Your task to perform on an android device: turn off priority inbox in the gmail app Image 0: 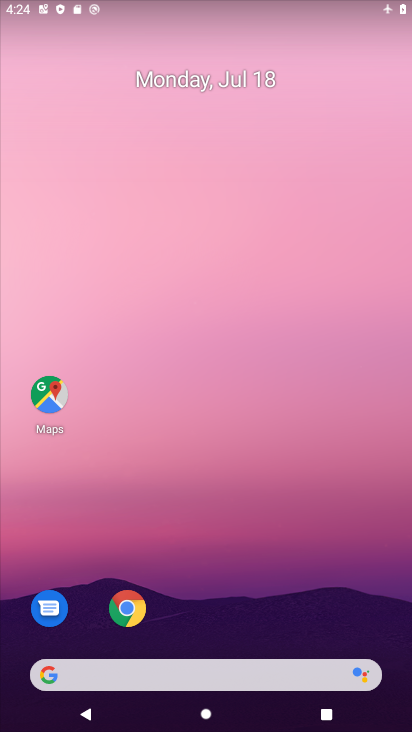
Step 0: drag from (247, 473) to (265, 86)
Your task to perform on an android device: turn off priority inbox in the gmail app Image 1: 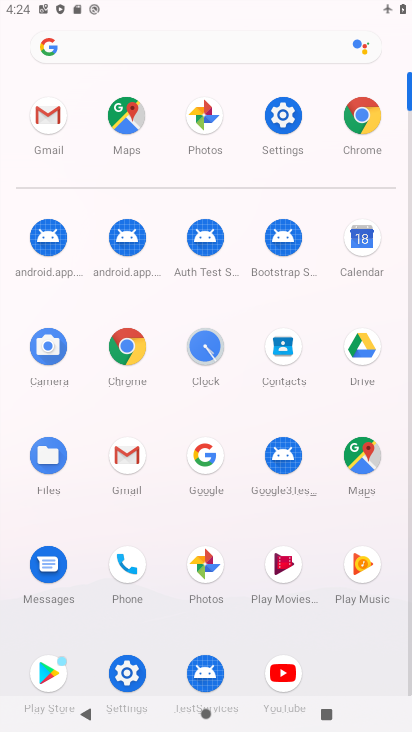
Step 1: click (120, 462)
Your task to perform on an android device: turn off priority inbox in the gmail app Image 2: 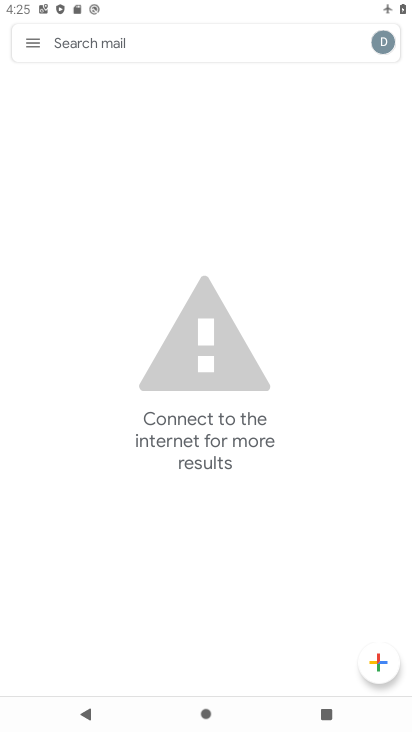
Step 2: click (35, 39)
Your task to perform on an android device: turn off priority inbox in the gmail app Image 3: 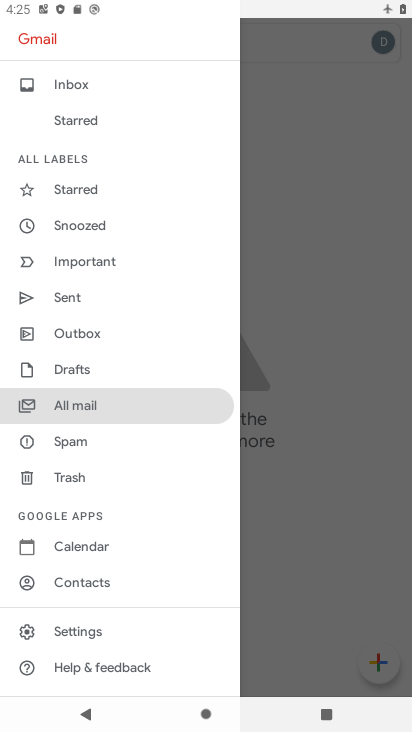
Step 3: click (92, 638)
Your task to perform on an android device: turn off priority inbox in the gmail app Image 4: 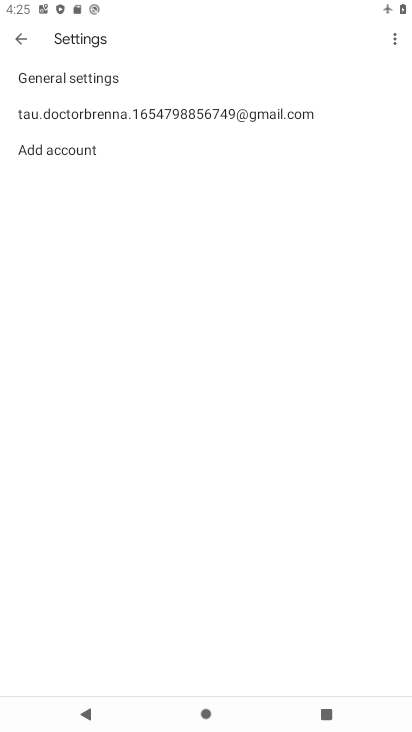
Step 4: click (242, 114)
Your task to perform on an android device: turn off priority inbox in the gmail app Image 5: 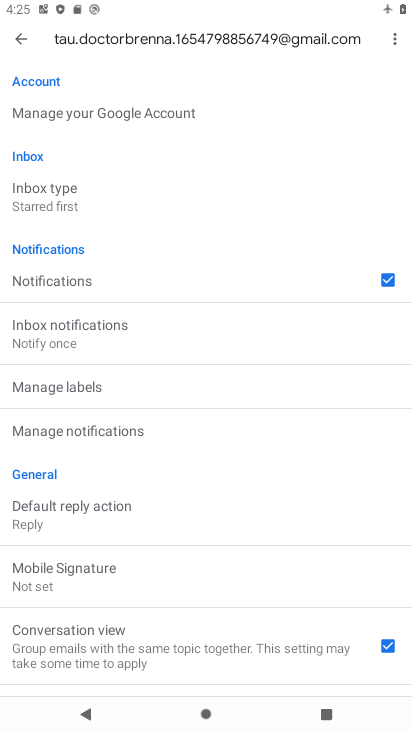
Step 5: drag from (234, 613) to (337, 23)
Your task to perform on an android device: turn off priority inbox in the gmail app Image 6: 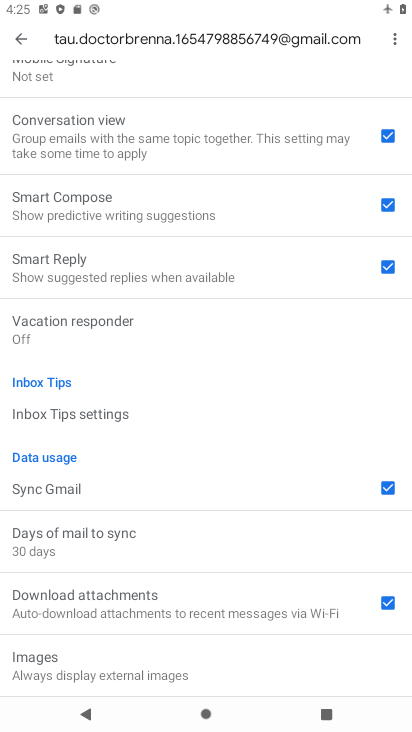
Step 6: drag from (194, 427) to (195, 576)
Your task to perform on an android device: turn off priority inbox in the gmail app Image 7: 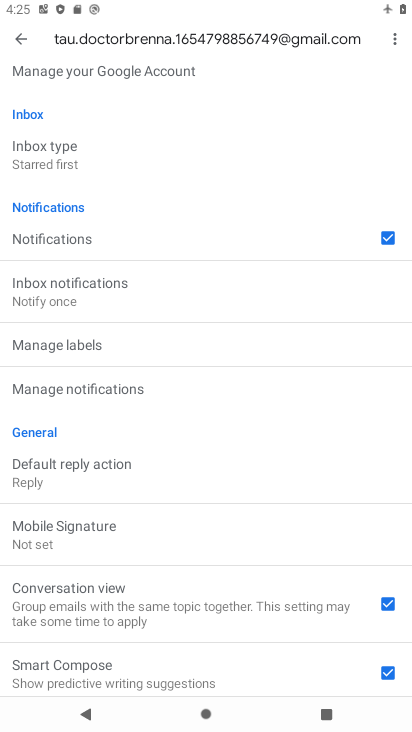
Step 7: drag from (133, 158) to (134, 407)
Your task to perform on an android device: turn off priority inbox in the gmail app Image 8: 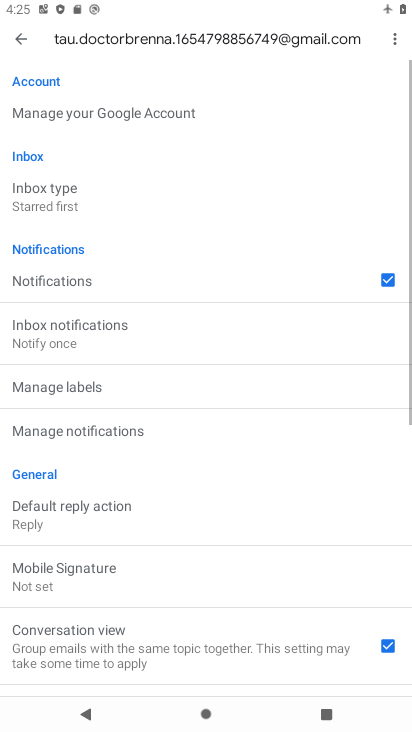
Step 8: click (53, 196)
Your task to perform on an android device: turn off priority inbox in the gmail app Image 9: 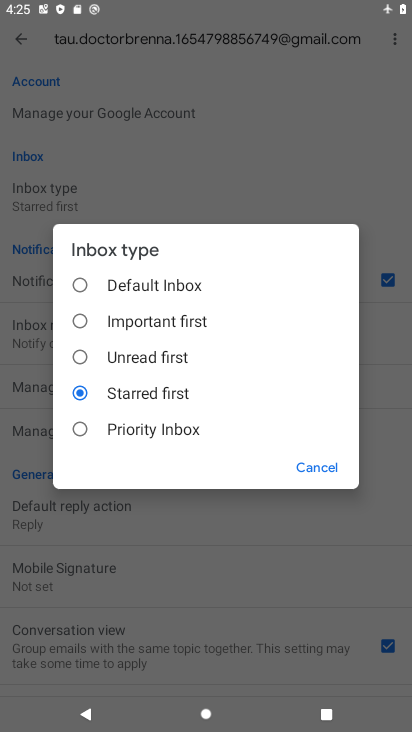
Step 9: task complete